Your task to perform on an android device: delete the emails in spam in the gmail app Image 0: 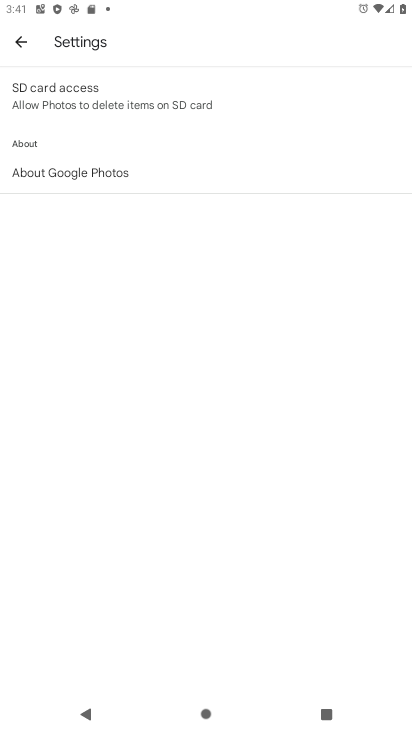
Step 0: press home button
Your task to perform on an android device: delete the emails in spam in the gmail app Image 1: 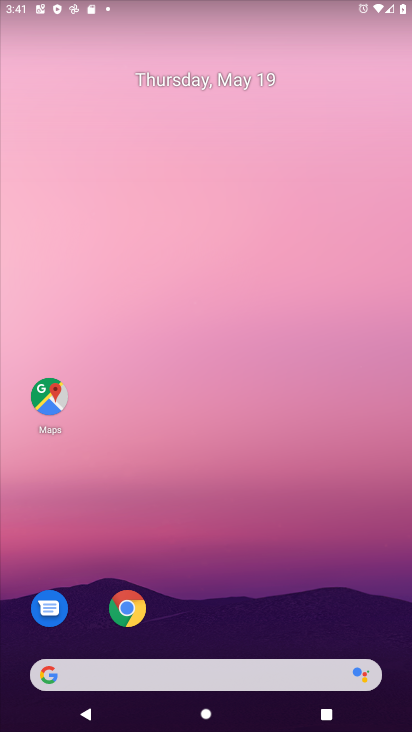
Step 1: drag from (346, 622) to (278, 93)
Your task to perform on an android device: delete the emails in spam in the gmail app Image 2: 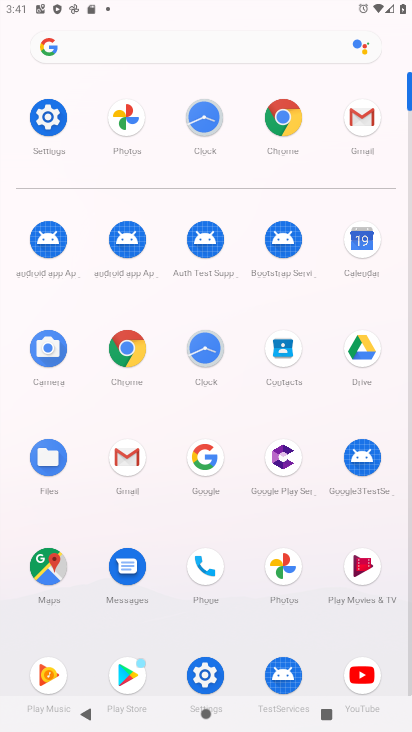
Step 2: click (375, 117)
Your task to perform on an android device: delete the emails in spam in the gmail app Image 3: 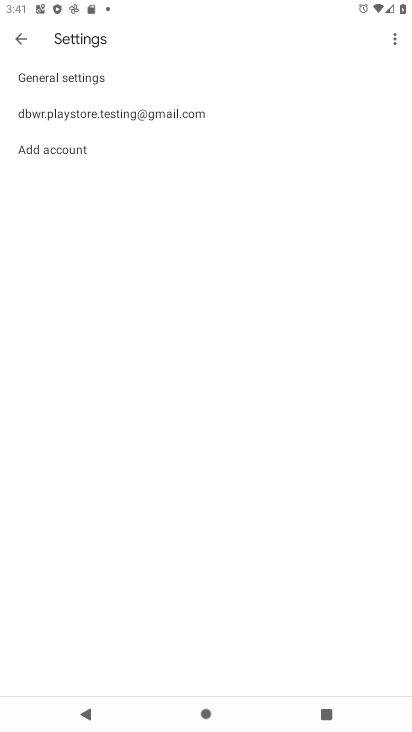
Step 3: click (13, 43)
Your task to perform on an android device: delete the emails in spam in the gmail app Image 4: 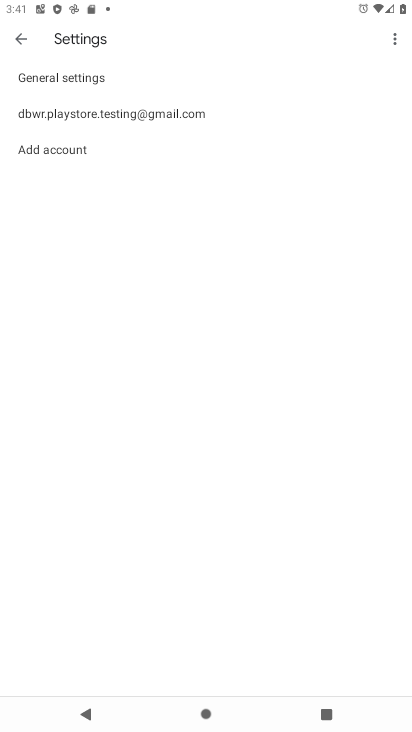
Step 4: click (13, 43)
Your task to perform on an android device: delete the emails in spam in the gmail app Image 5: 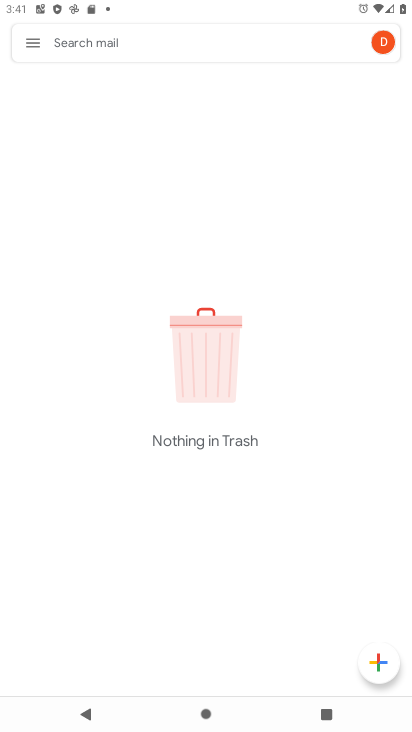
Step 5: click (21, 43)
Your task to perform on an android device: delete the emails in spam in the gmail app Image 6: 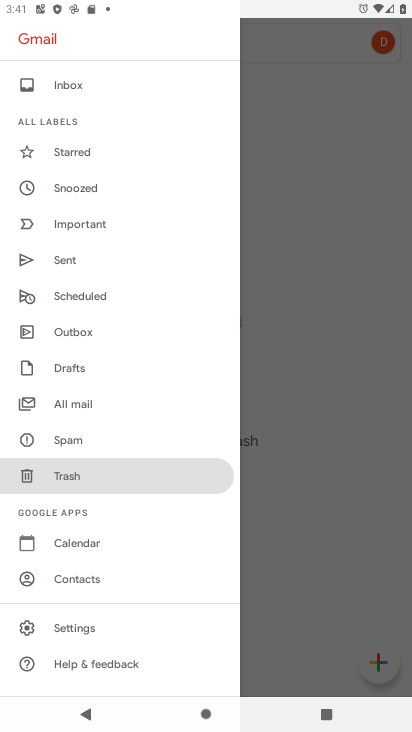
Step 6: click (100, 429)
Your task to perform on an android device: delete the emails in spam in the gmail app Image 7: 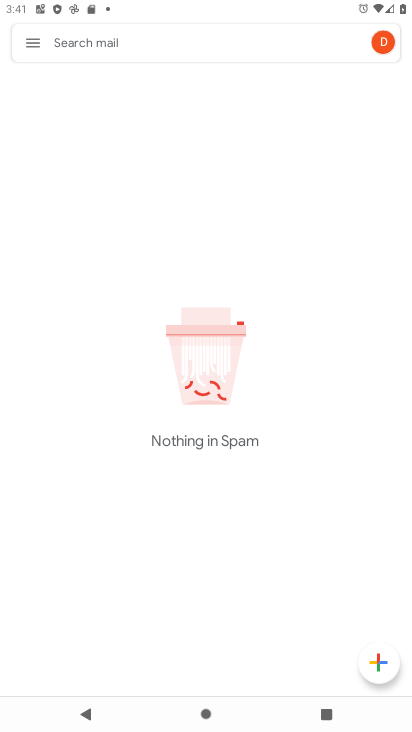
Step 7: task complete